Your task to perform on an android device: open chrome and create a bookmark for the current page Image 0: 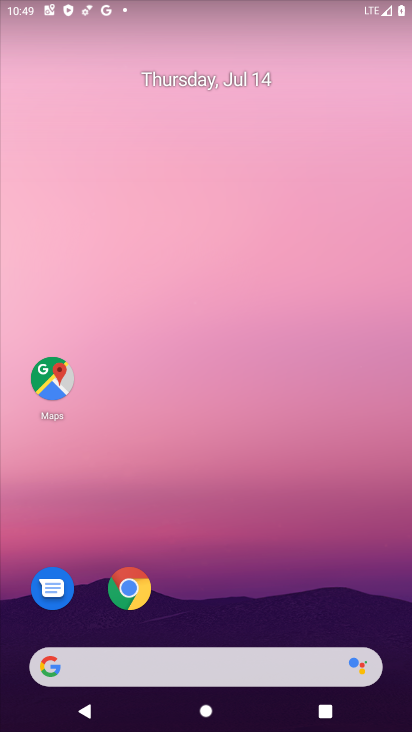
Step 0: press home button
Your task to perform on an android device: open chrome and create a bookmark for the current page Image 1: 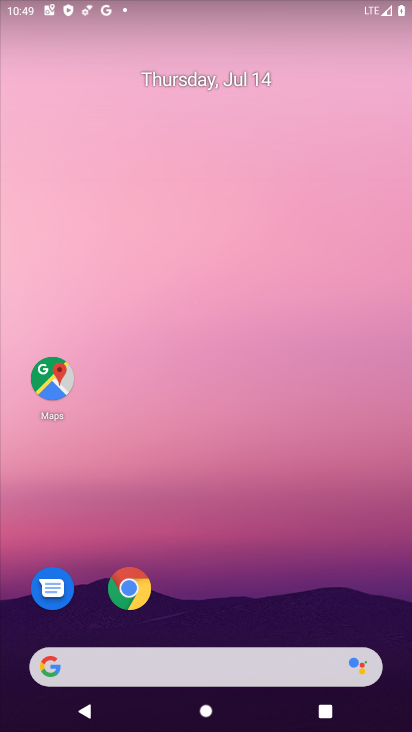
Step 1: click (125, 595)
Your task to perform on an android device: open chrome and create a bookmark for the current page Image 2: 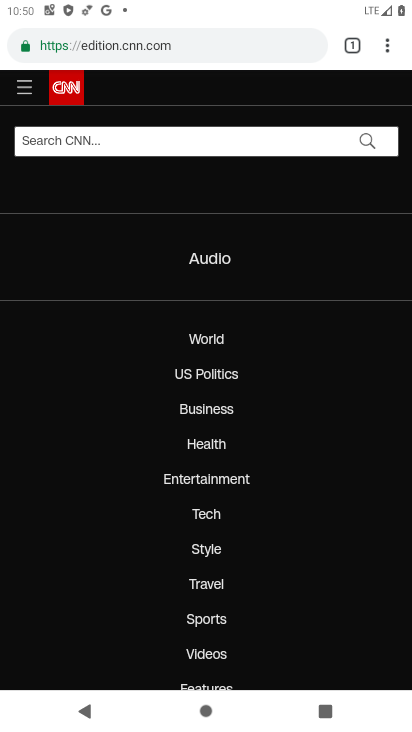
Step 2: click (384, 53)
Your task to perform on an android device: open chrome and create a bookmark for the current page Image 3: 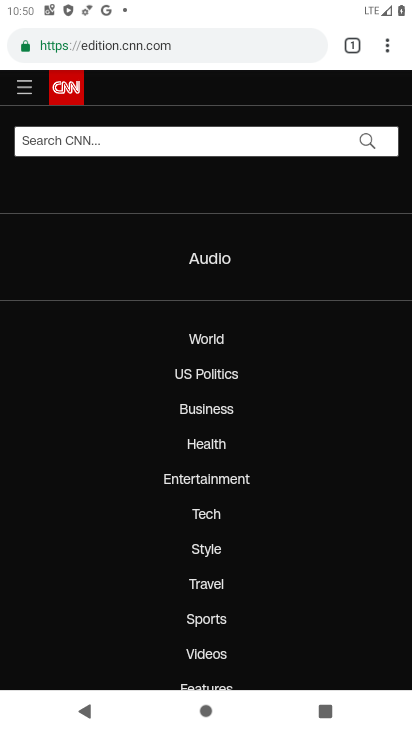
Step 3: click (384, 61)
Your task to perform on an android device: open chrome and create a bookmark for the current page Image 4: 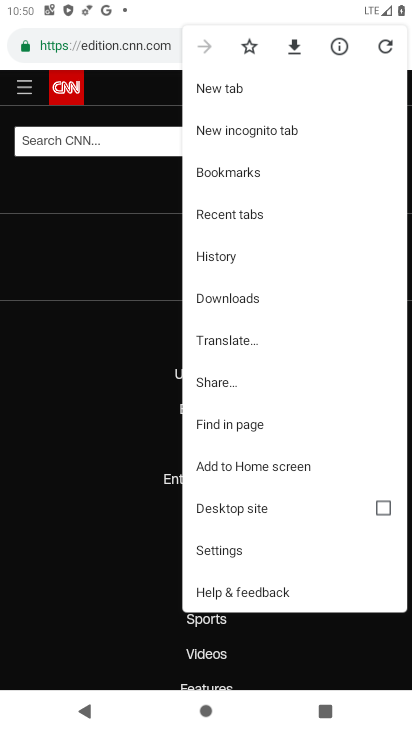
Step 4: click (250, 46)
Your task to perform on an android device: open chrome and create a bookmark for the current page Image 5: 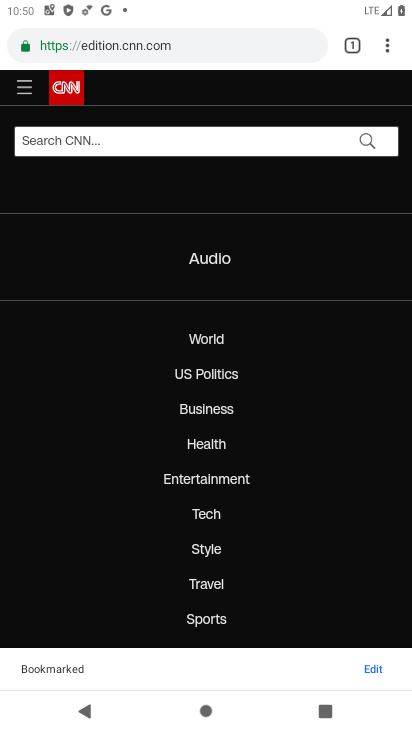
Step 5: task complete